Your task to perform on an android device: find which apps use the phone's location Image 0: 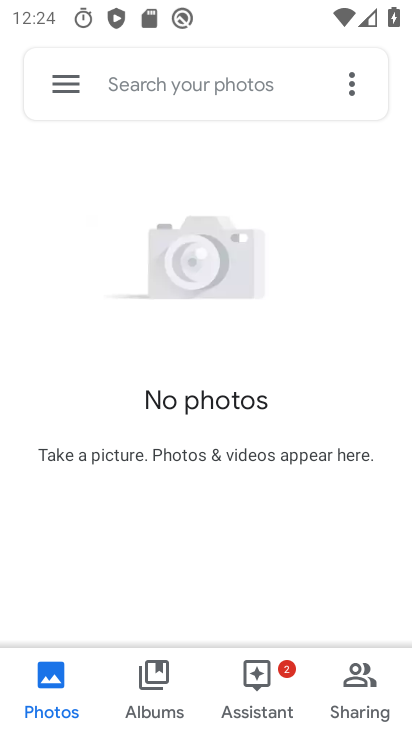
Step 0: press back button
Your task to perform on an android device: find which apps use the phone's location Image 1: 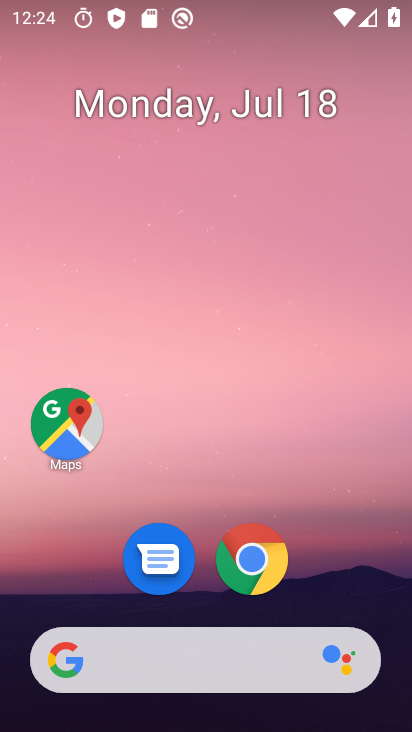
Step 1: drag from (106, 610) to (256, 3)
Your task to perform on an android device: find which apps use the phone's location Image 2: 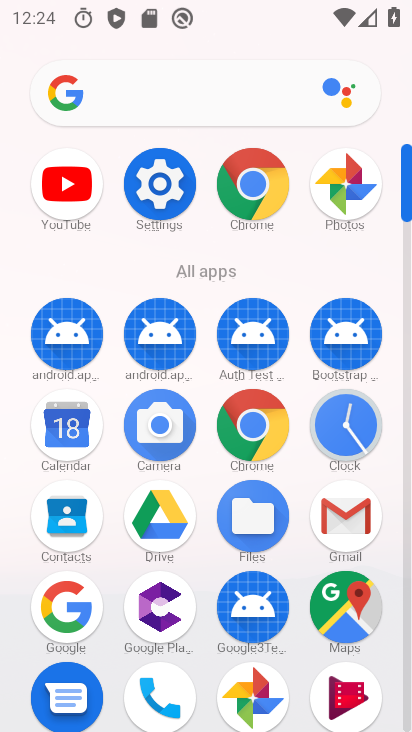
Step 2: click (167, 190)
Your task to perform on an android device: find which apps use the phone's location Image 3: 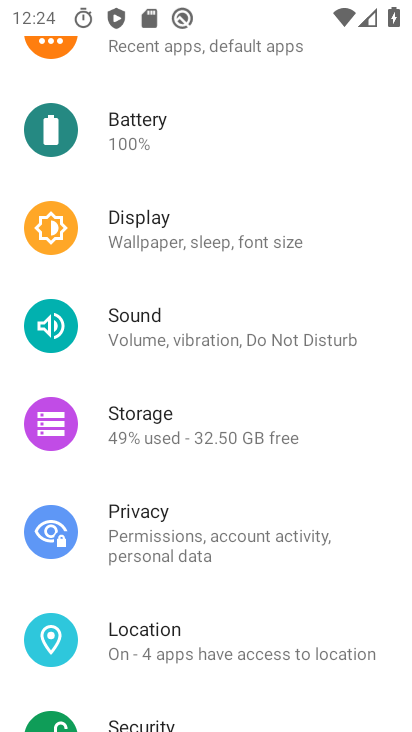
Step 3: click (154, 634)
Your task to perform on an android device: find which apps use the phone's location Image 4: 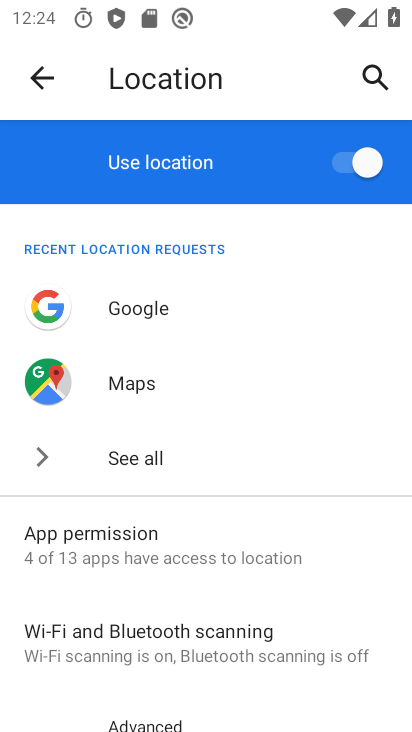
Step 4: click (164, 541)
Your task to perform on an android device: find which apps use the phone's location Image 5: 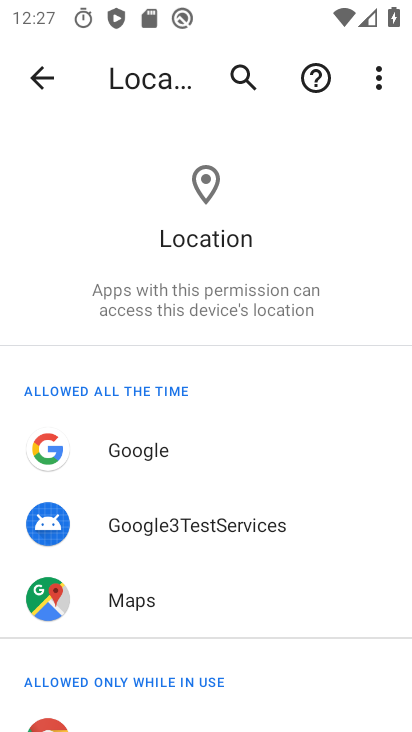
Step 5: task complete